Your task to perform on an android device: Open Reddit.com Image 0: 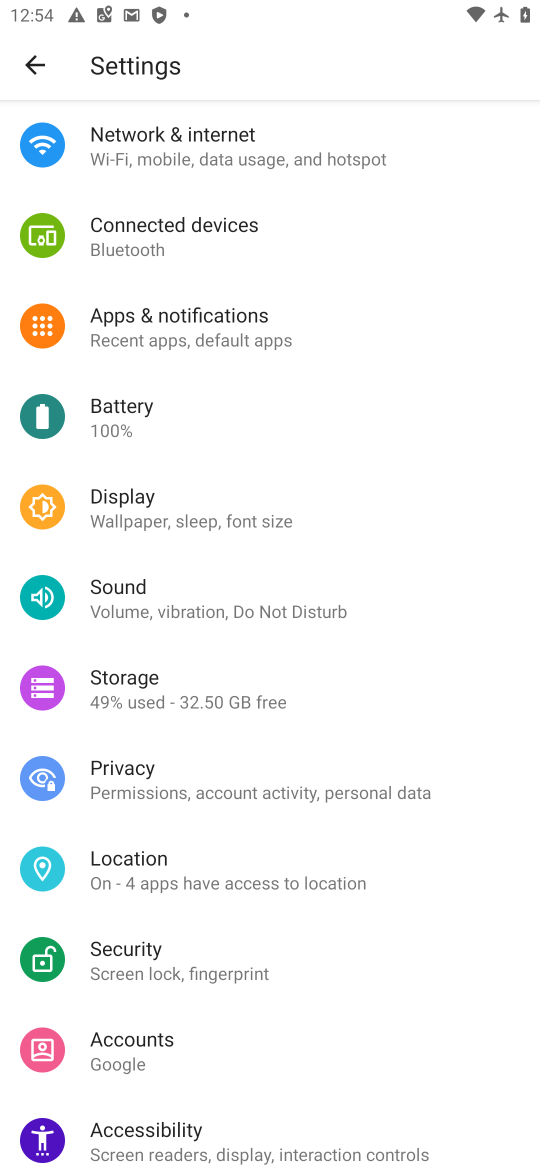
Step 0: press home button
Your task to perform on an android device: Open Reddit.com Image 1: 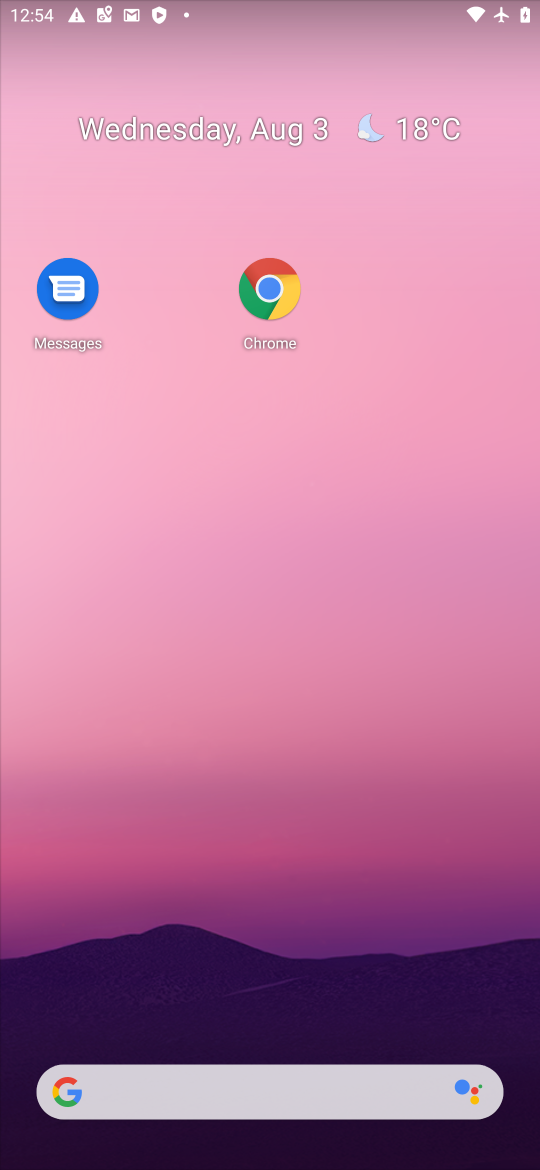
Step 1: click (266, 335)
Your task to perform on an android device: Open Reddit.com Image 2: 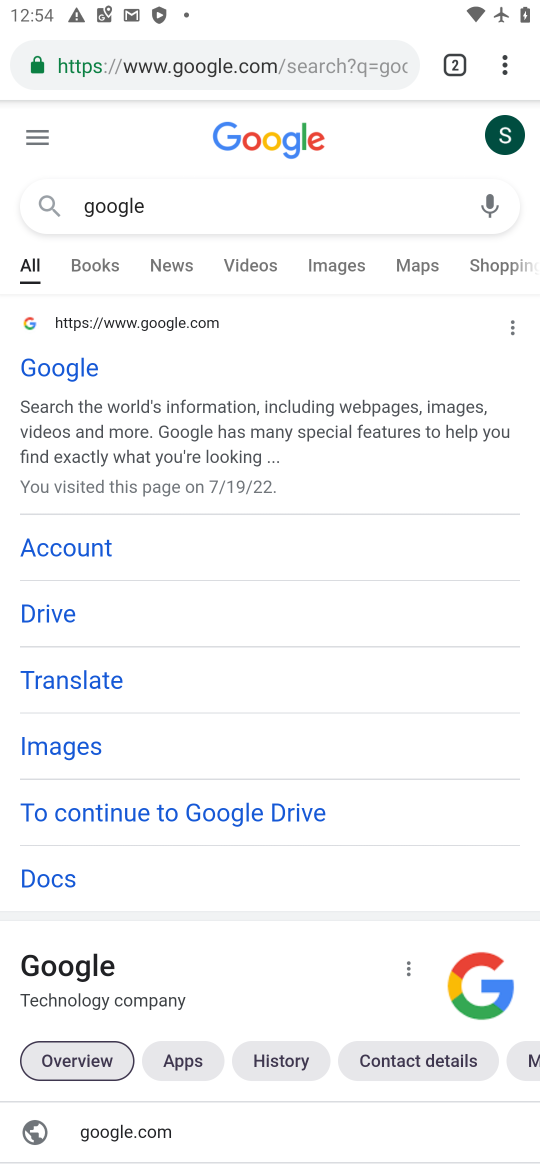
Step 2: click (371, 47)
Your task to perform on an android device: Open Reddit.com Image 3: 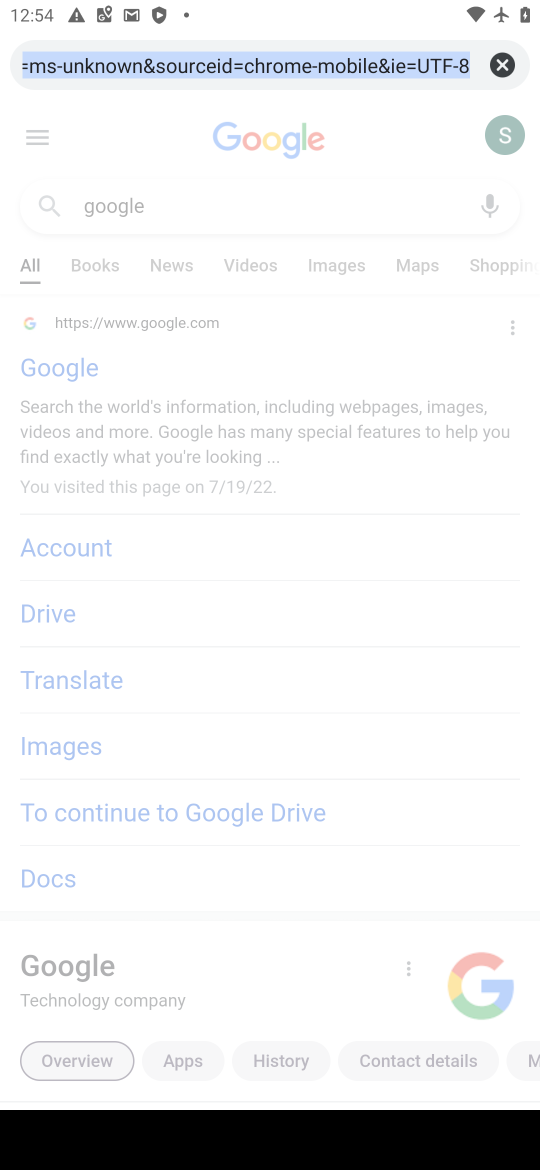
Step 3: click (508, 67)
Your task to perform on an android device: Open Reddit.com Image 4: 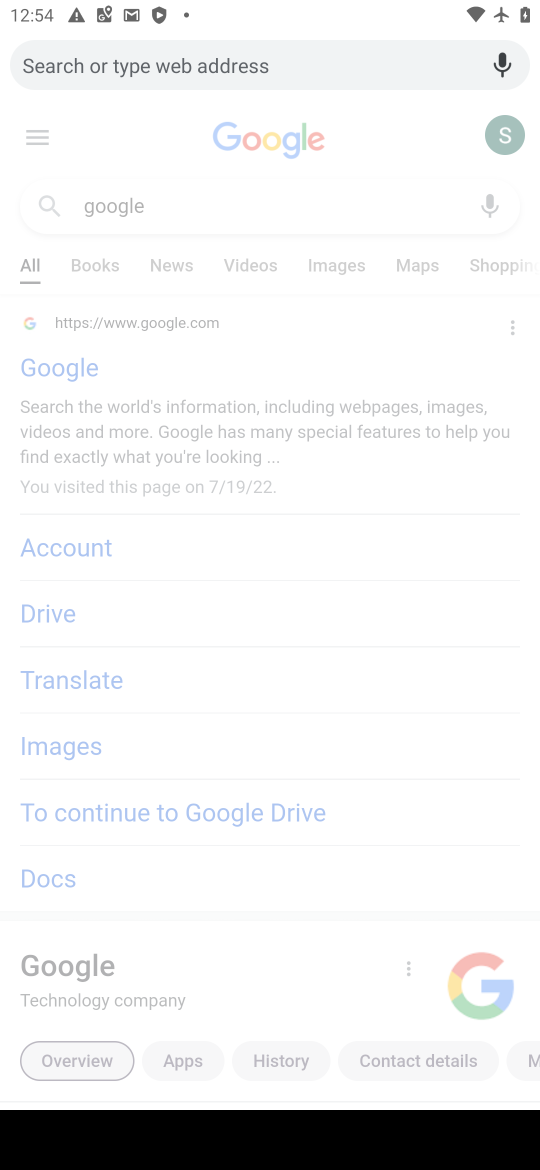
Step 4: type "reddit.com"
Your task to perform on an android device: Open Reddit.com Image 5: 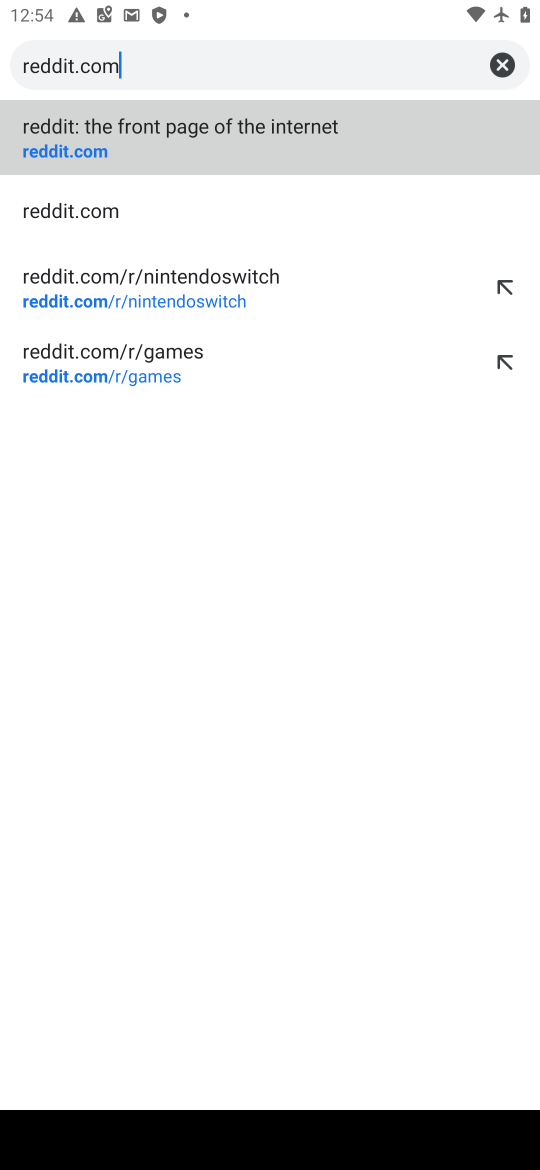
Step 5: click (218, 133)
Your task to perform on an android device: Open Reddit.com Image 6: 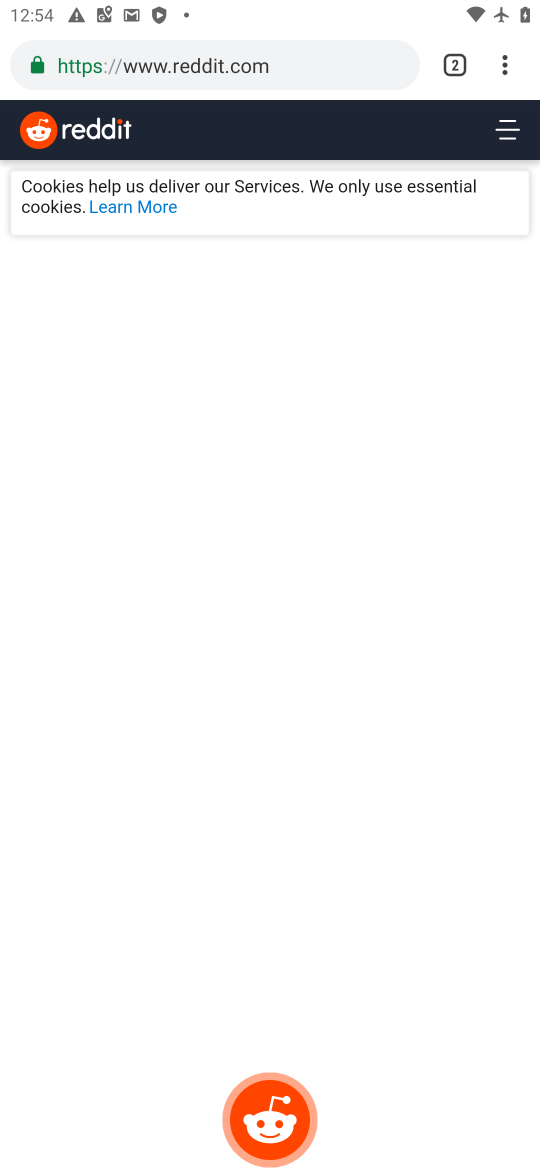
Step 6: task complete